Your task to perform on an android device: delete browsing data in the chrome app Image 0: 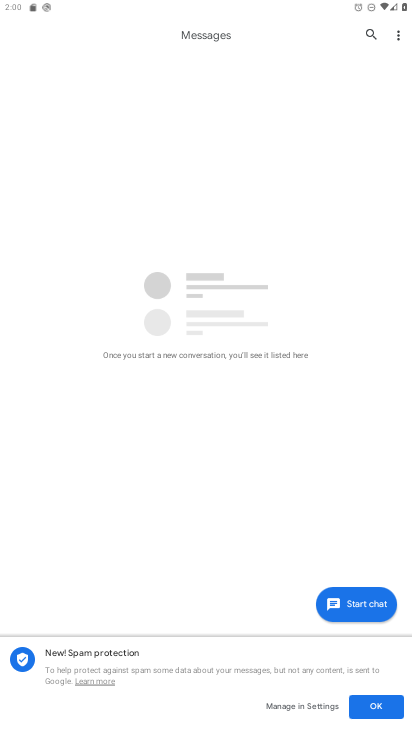
Step 0: press home button
Your task to perform on an android device: delete browsing data in the chrome app Image 1: 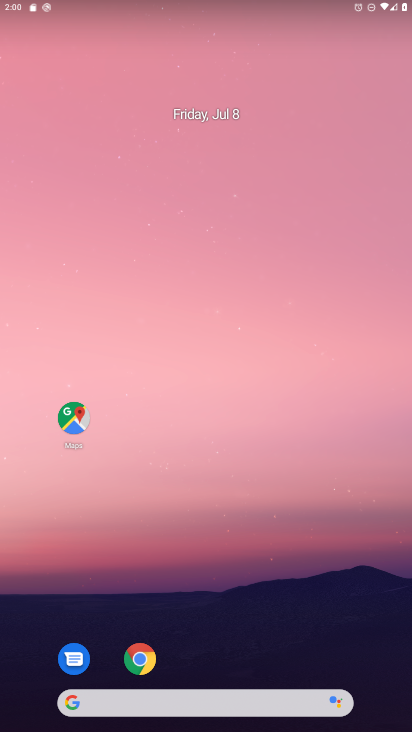
Step 1: click (136, 656)
Your task to perform on an android device: delete browsing data in the chrome app Image 2: 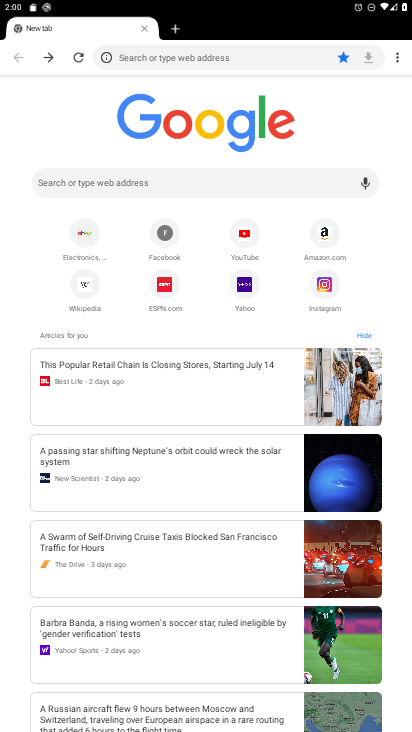
Step 2: click (396, 59)
Your task to perform on an android device: delete browsing data in the chrome app Image 3: 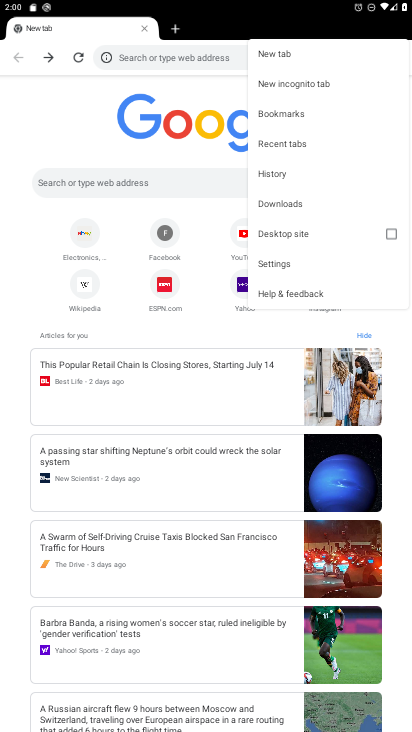
Step 3: click (278, 259)
Your task to perform on an android device: delete browsing data in the chrome app Image 4: 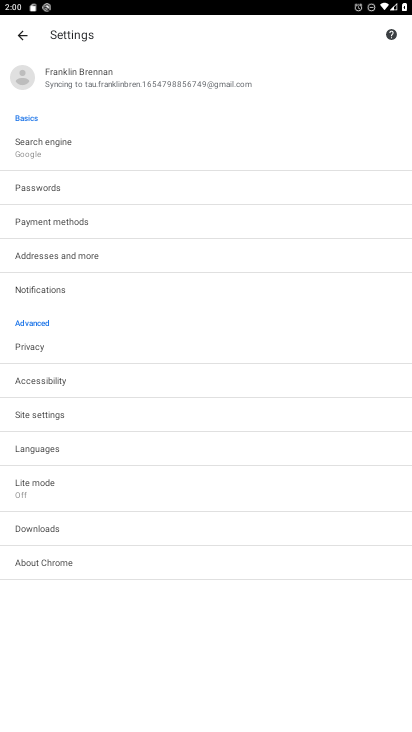
Step 4: click (37, 346)
Your task to perform on an android device: delete browsing data in the chrome app Image 5: 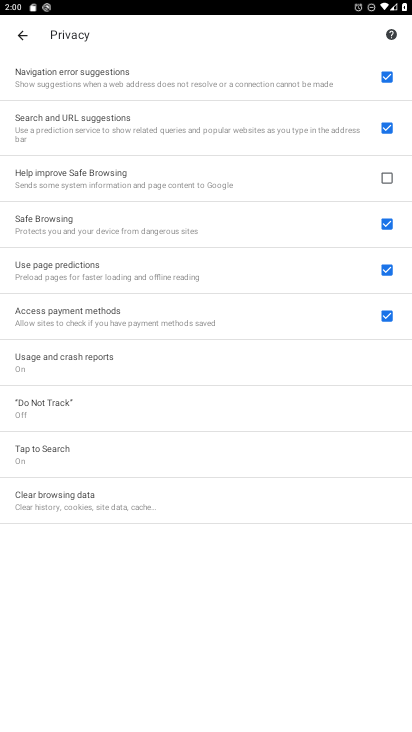
Step 5: click (66, 492)
Your task to perform on an android device: delete browsing data in the chrome app Image 6: 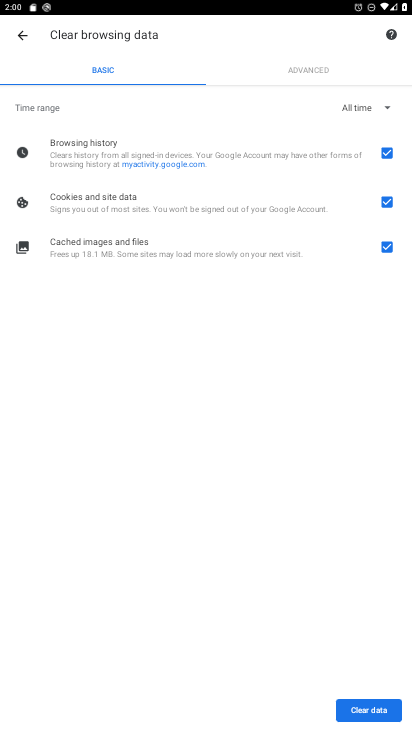
Step 6: click (383, 205)
Your task to perform on an android device: delete browsing data in the chrome app Image 7: 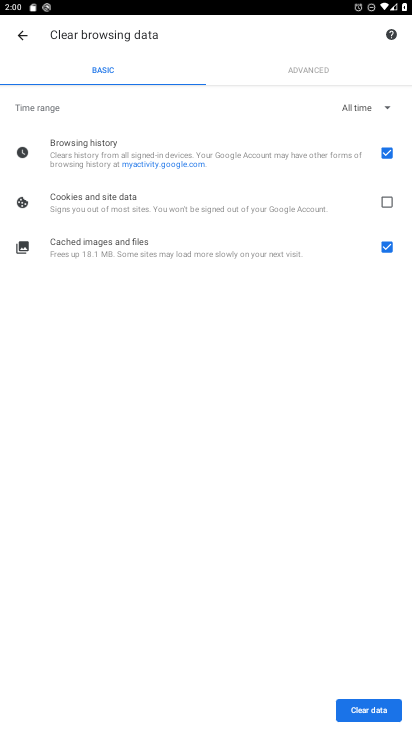
Step 7: click (383, 205)
Your task to perform on an android device: delete browsing data in the chrome app Image 8: 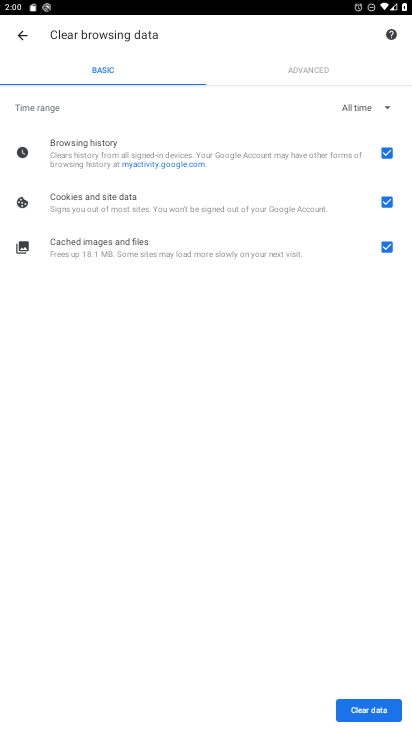
Step 8: click (353, 708)
Your task to perform on an android device: delete browsing data in the chrome app Image 9: 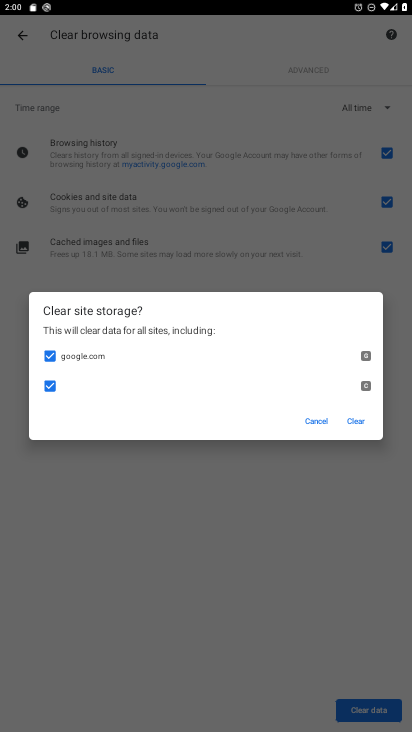
Step 9: click (357, 424)
Your task to perform on an android device: delete browsing data in the chrome app Image 10: 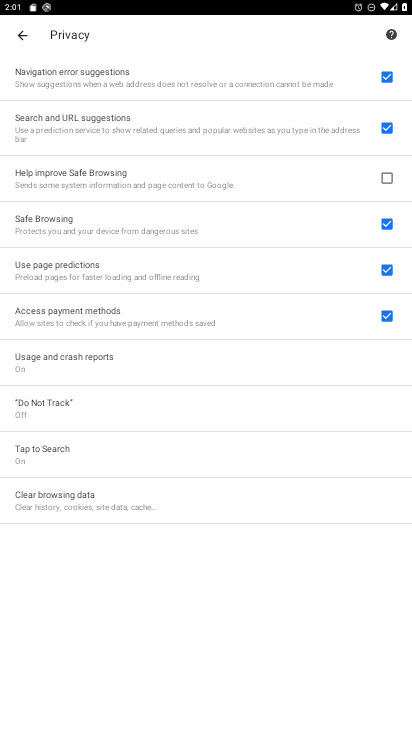
Step 10: task complete